Your task to perform on an android device: turn on priority inbox in the gmail app Image 0: 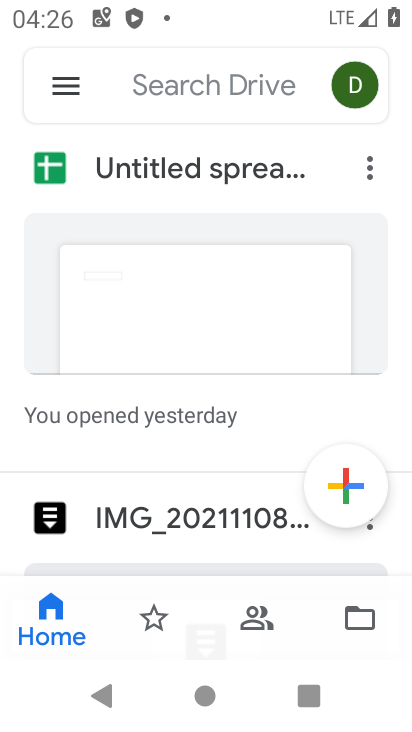
Step 0: press home button
Your task to perform on an android device: turn on priority inbox in the gmail app Image 1: 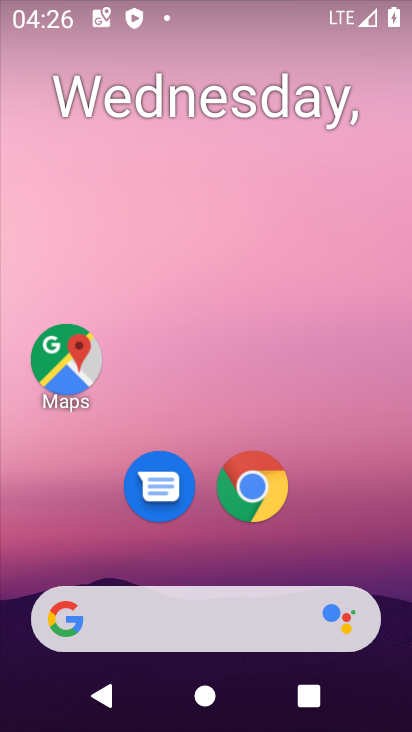
Step 1: drag from (223, 583) to (184, 181)
Your task to perform on an android device: turn on priority inbox in the gmail app Image 2: 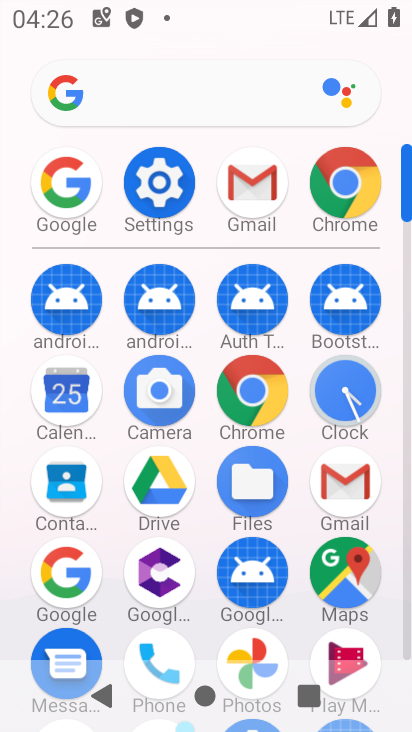
Step 2: click (243, 193)
Your task to perform on an android device: turn on priority inbox in the gmail app Image 3: 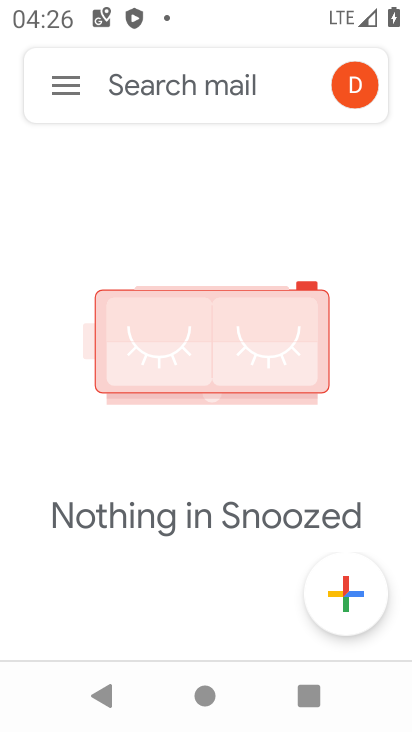
Step 3: click (62, 87)
Your task to perform on an android device: turn on priority inbox in the gmail app Image 4: 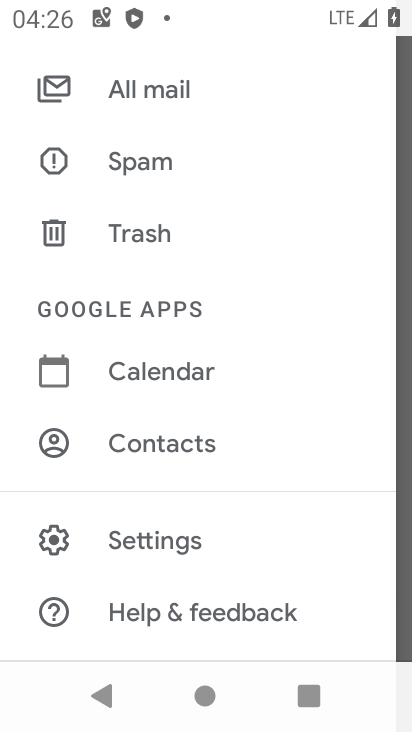
Step 4: click (143, 543)
Your task to perform on an android device: turn on priority inbox in the gmail app Image 5: 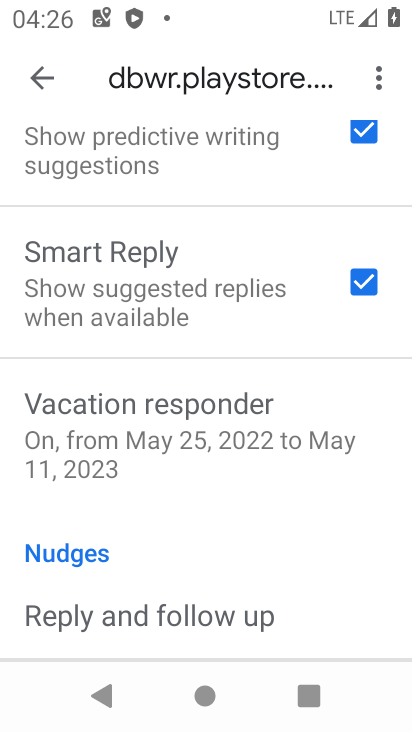
Step 5: task complete